Your task to perform on an android device: turn off location Image 0: 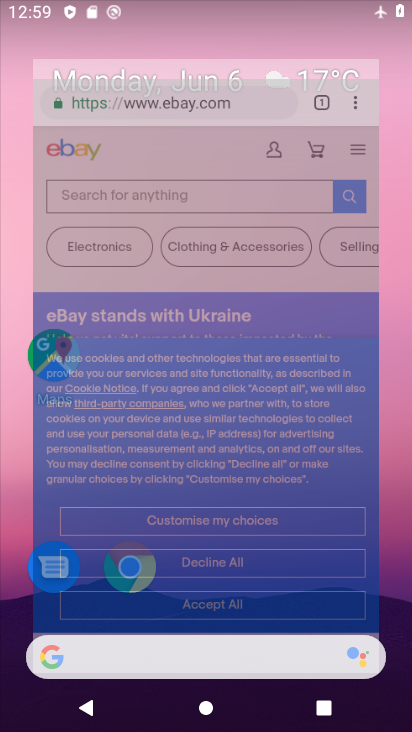
Step 0: drag from (250, 705) to (322, 237)
Your task to perform on an android device: turn off location Image 1: 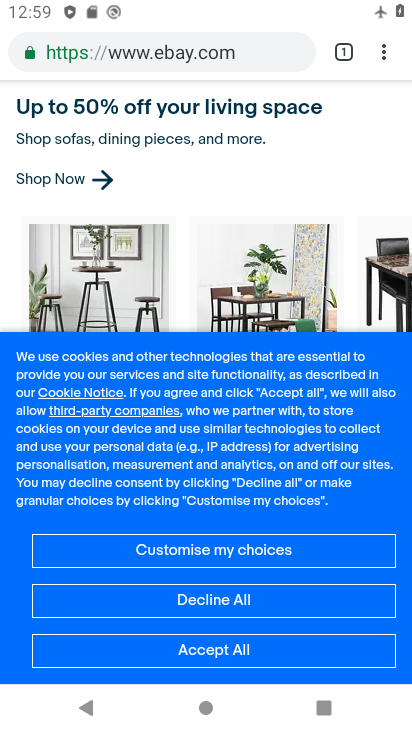
Step 1: press home button
Your task to perform on an android device: turn off location Image 2: 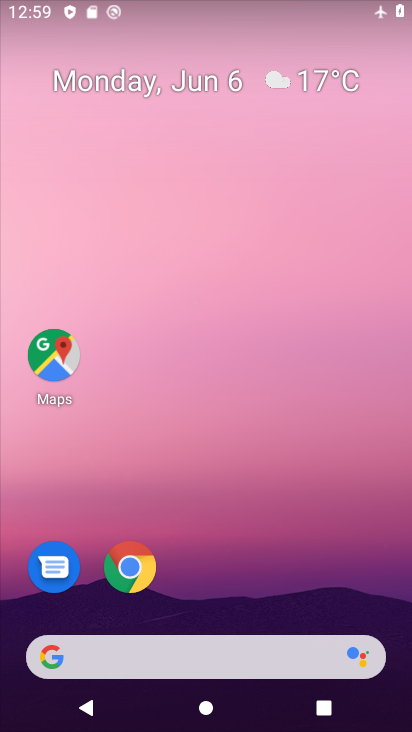
Step 2: drag from (251, 715) to (299, 139)
Your task to perform on an android device: turn off location Image 3: 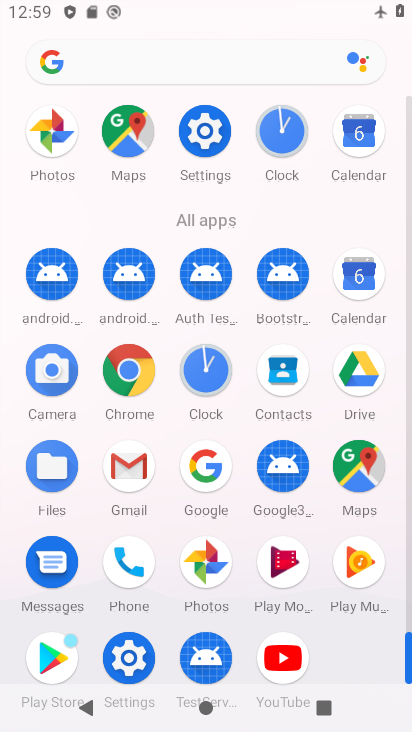
Step 3: click (217, 129)
Your task to perform on an android device: turn off location Image 4: 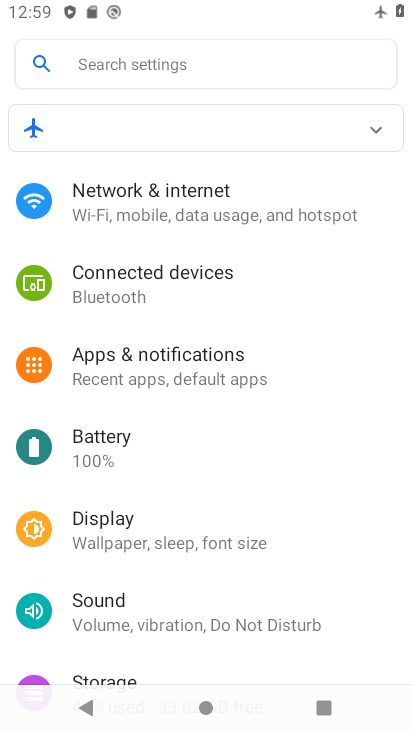
Step 4: drag from (177, 600) to (219, 141)
Your task to perform on an android device: turn off location Image 5: 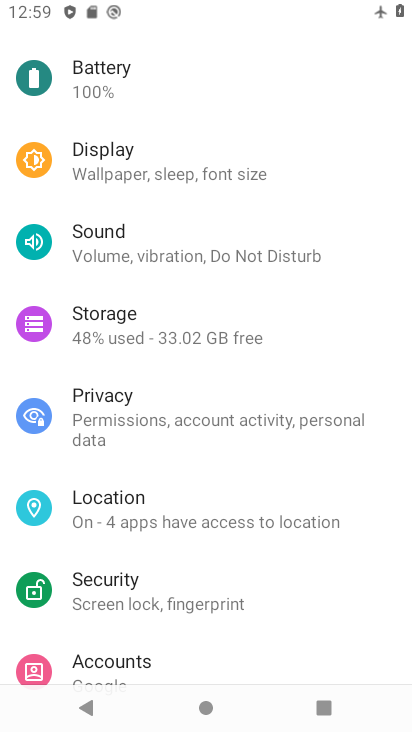
Step 5: click (180, 509)
Your task to perform on an android device: turn off location Image 6: 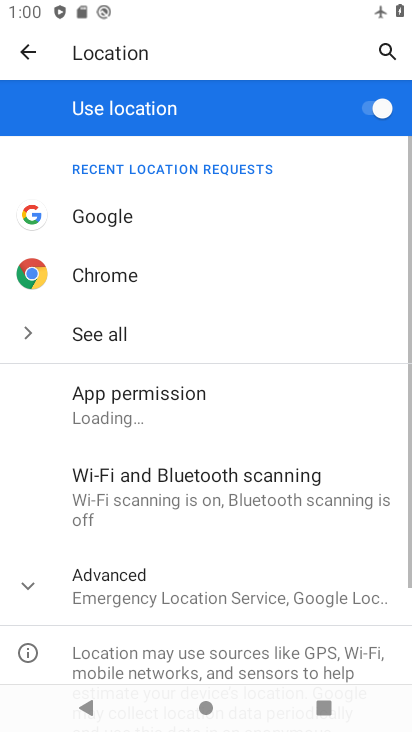
Step 6: click (371, 105)
Your task to perform on an android device: turn off location Image 7: 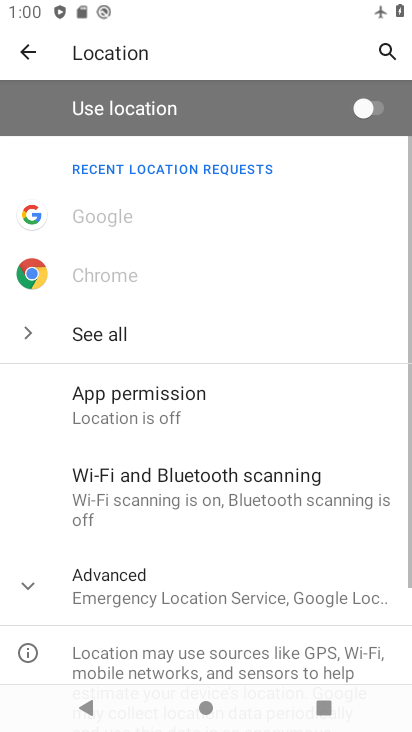
Step 7: task complete